Your task to perform on an android device: empty trash in google photos Image 0: 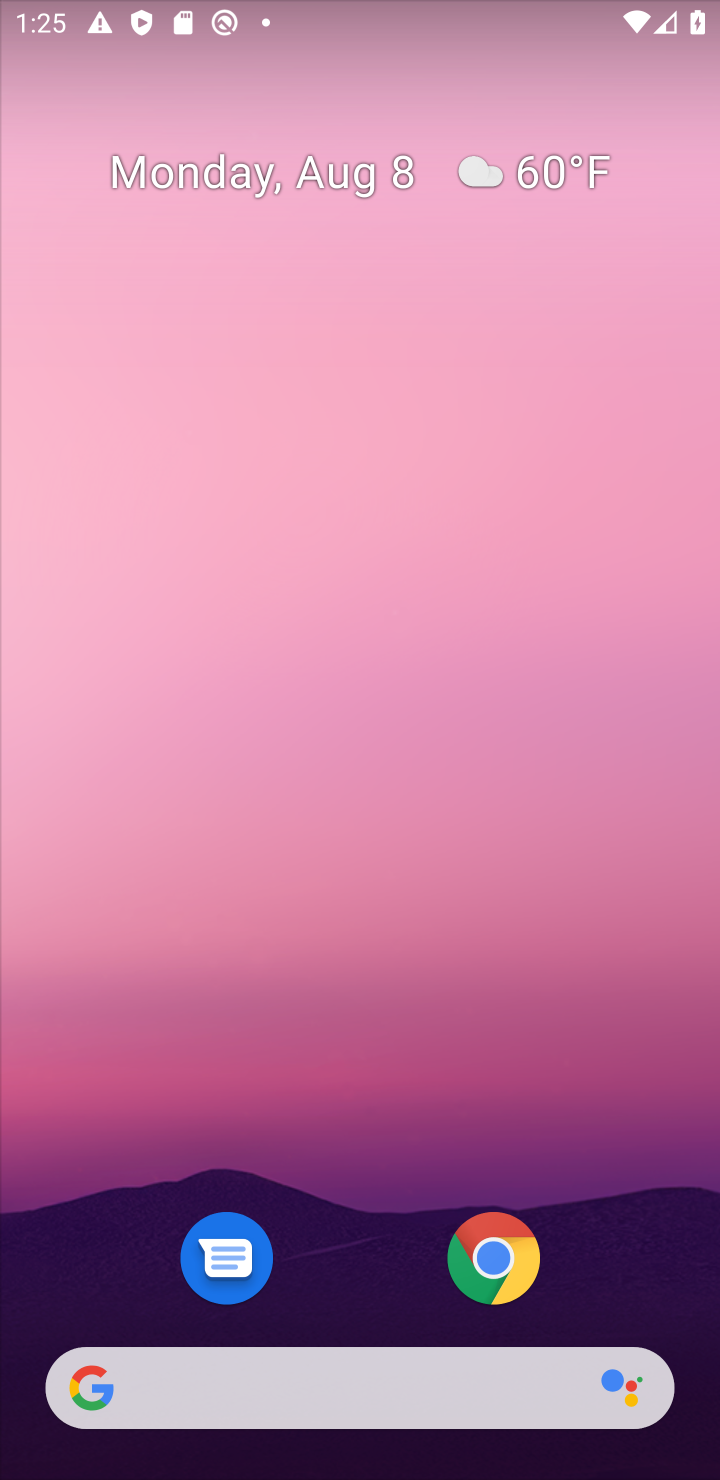
Step 0: drag from (401, 892) to (400, 14)
Your task to perform on an android device: empty trash in google photos Image 1: 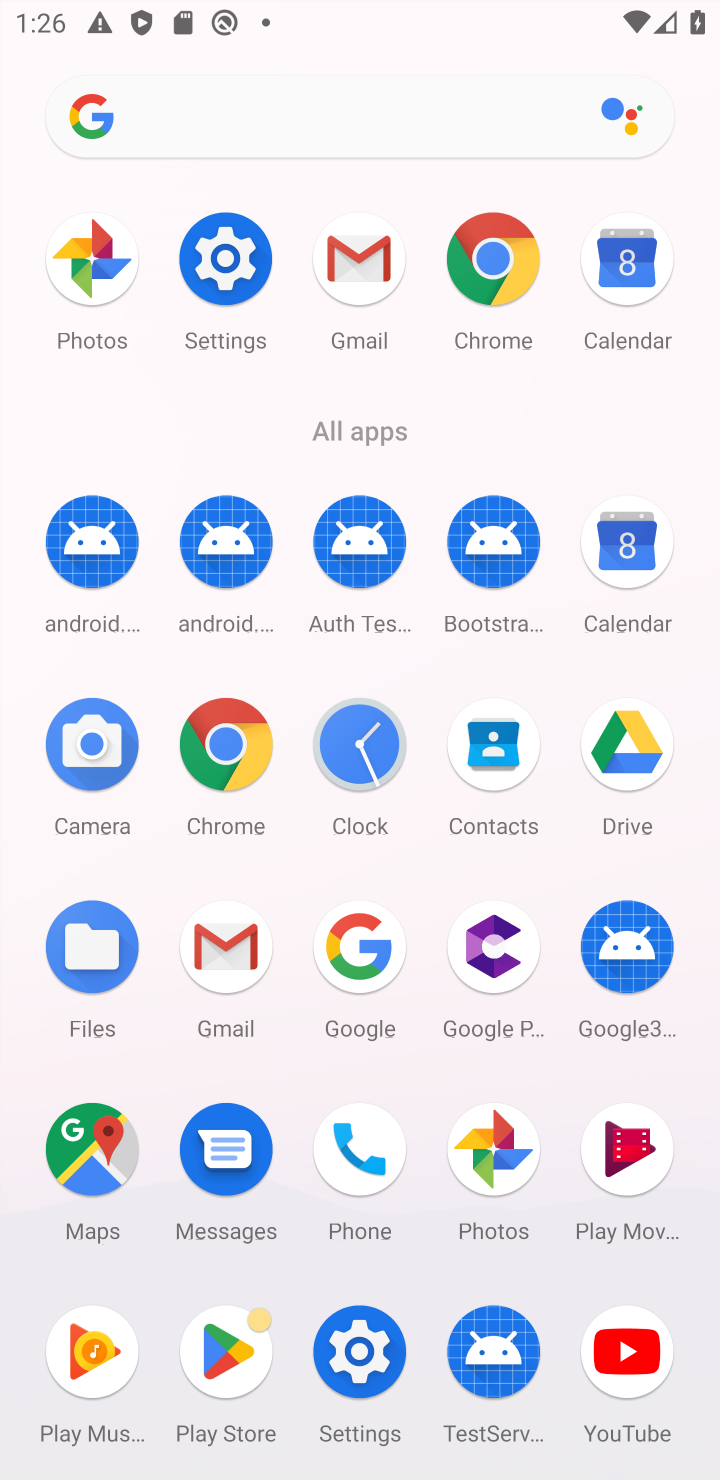
Step 1: click (493, 1148)
Your task to perform on an android device: empty trash in google photos Image 2: 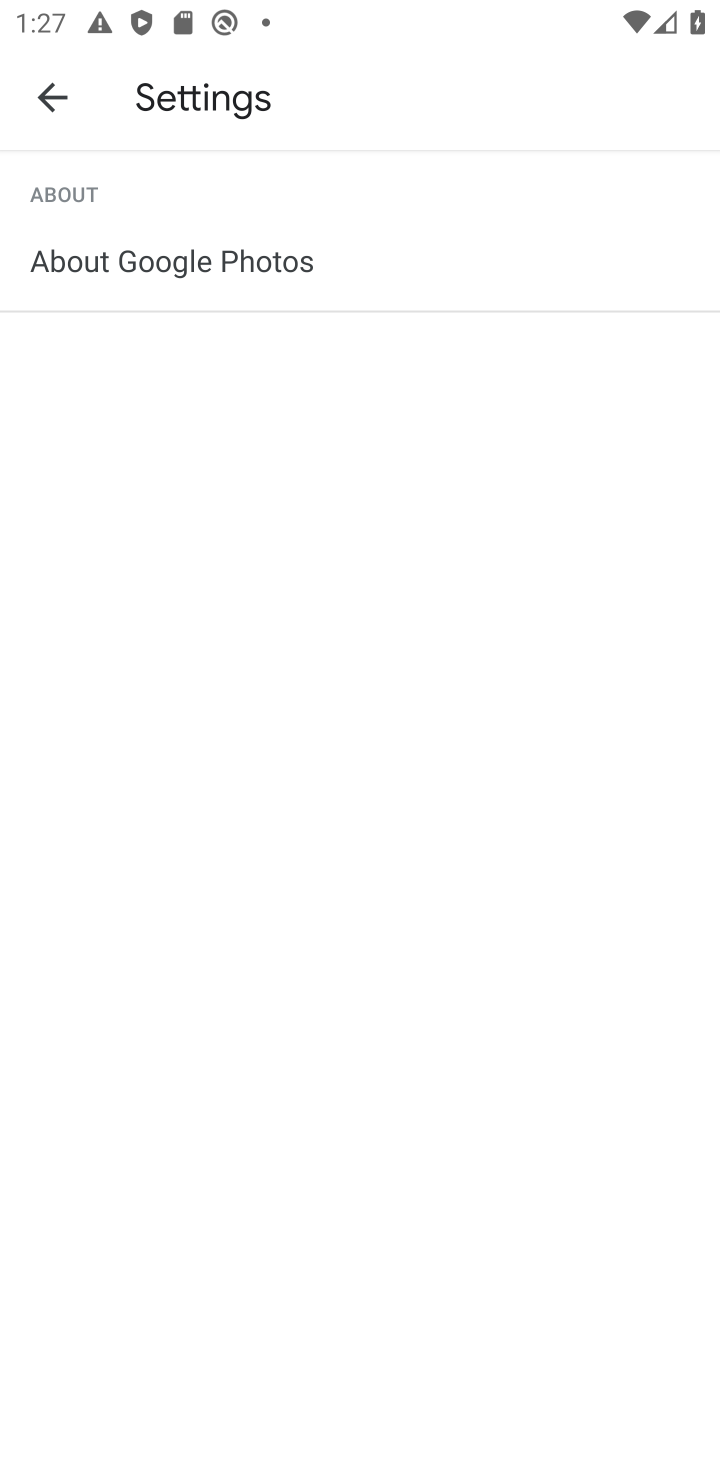
Step 2: click (39, 105)
Your task to perform on an android device: empty trash in google photos Image 3: 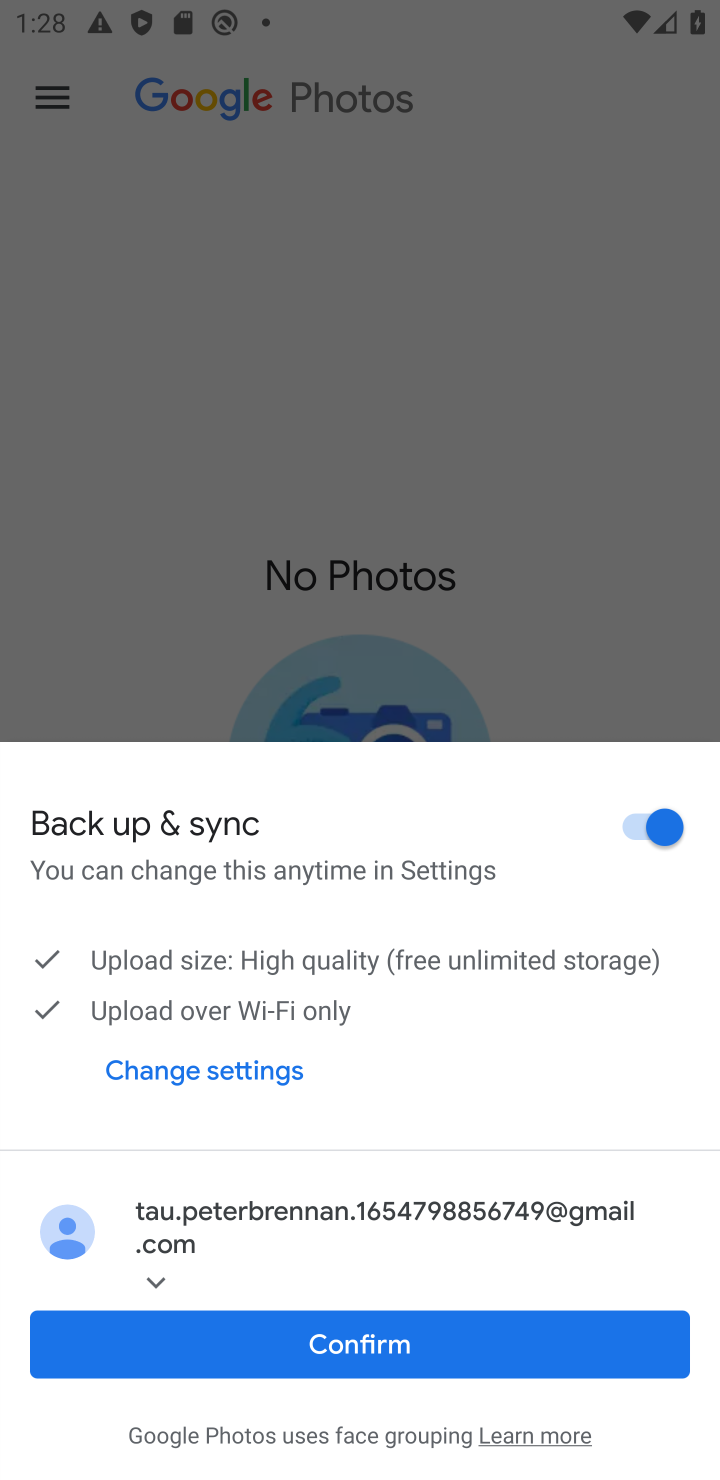
Step 3: click (309, 1329)
Your task to perform on an android device: empty trash in google photos Image 4: 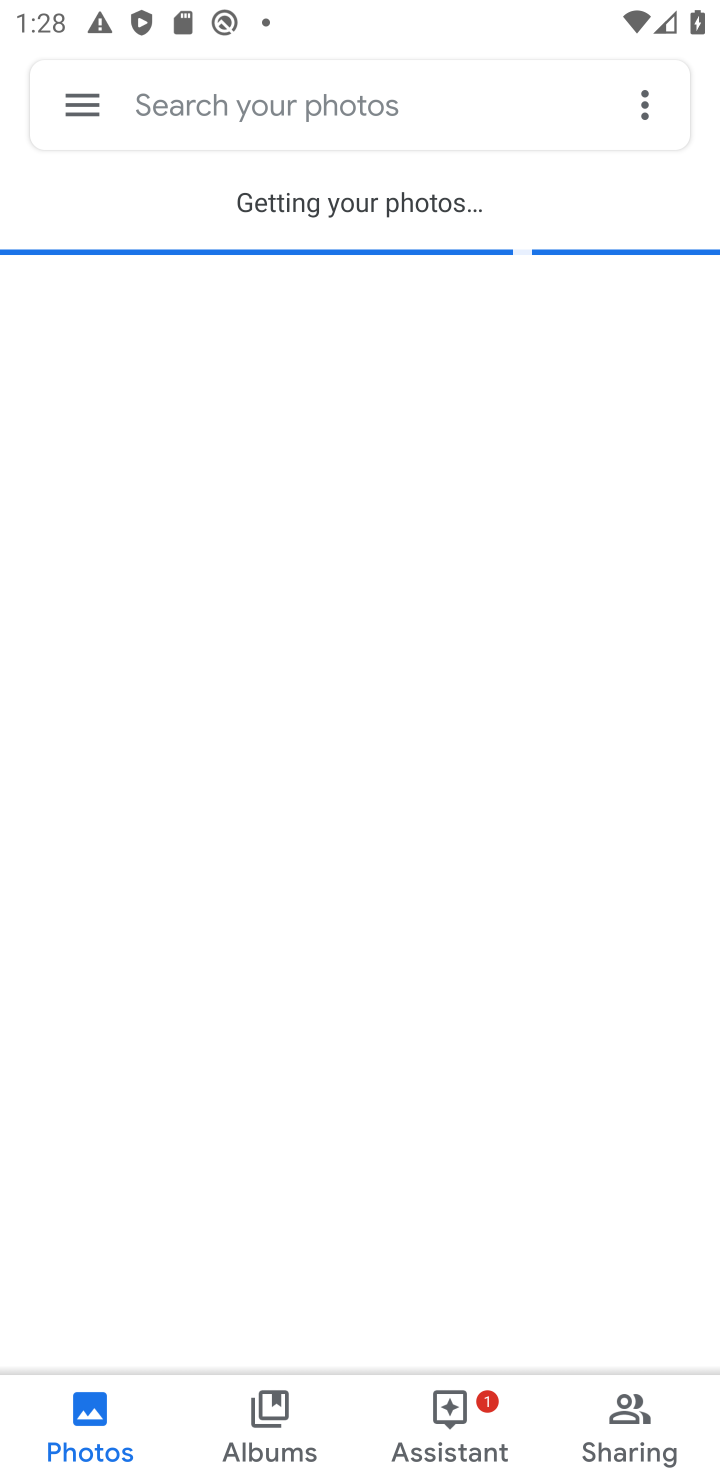
Step 4: click (89, 108)
Your task to perform on an android device: empty trash in google photos Image 5: 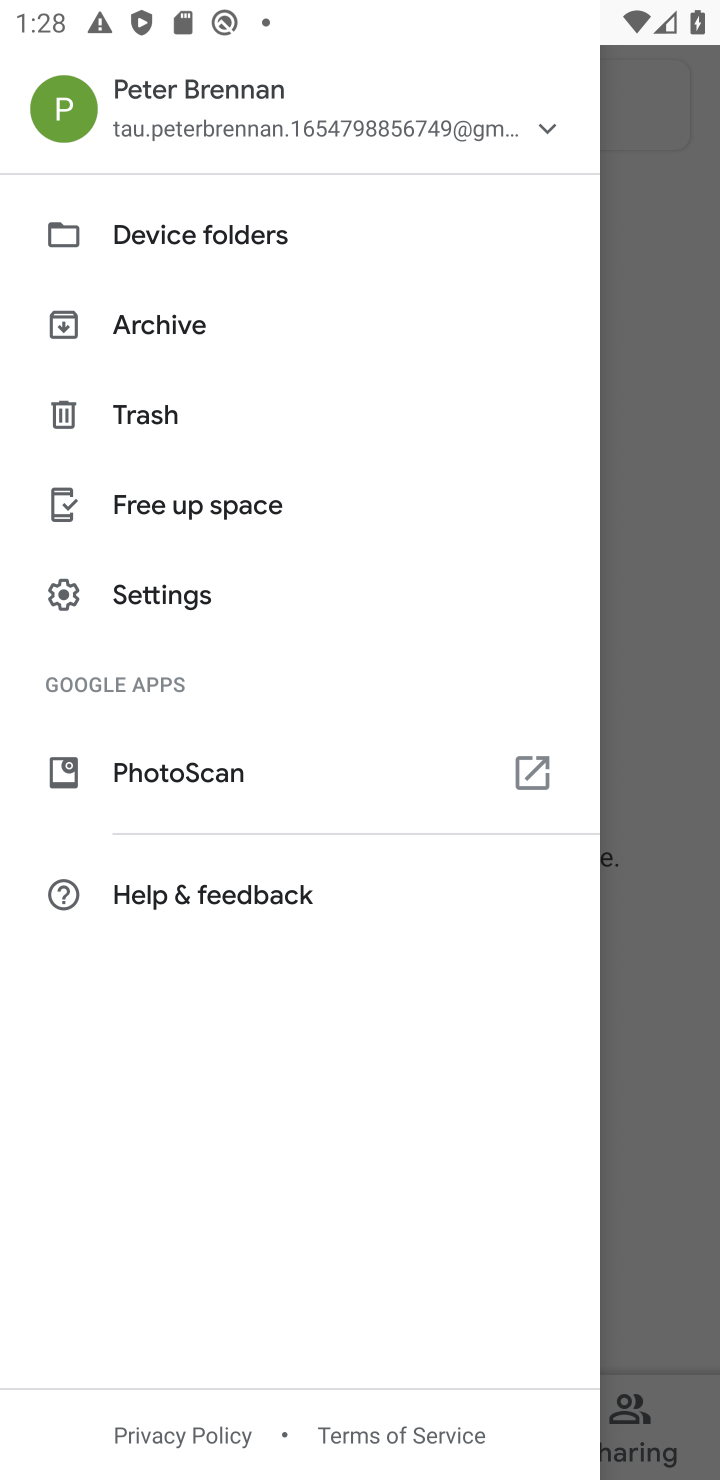
Step 5: click (198, 384)
Your task to perform on an android device: empty trash in google photos Image 6: 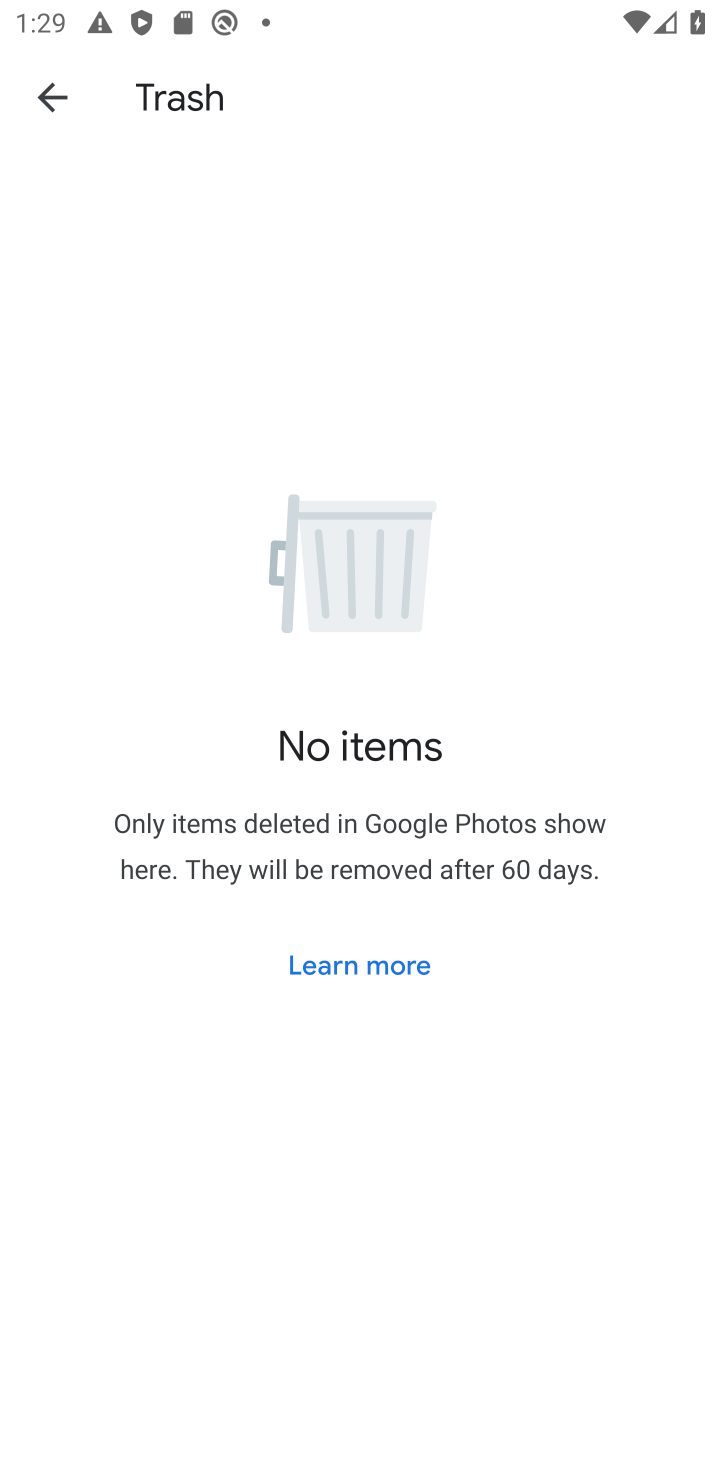
Step 6: task complete